Your task to perform on an android device: Add "macbook pro 13 inch" to the cart on walmart, then select checkout. Image 0: 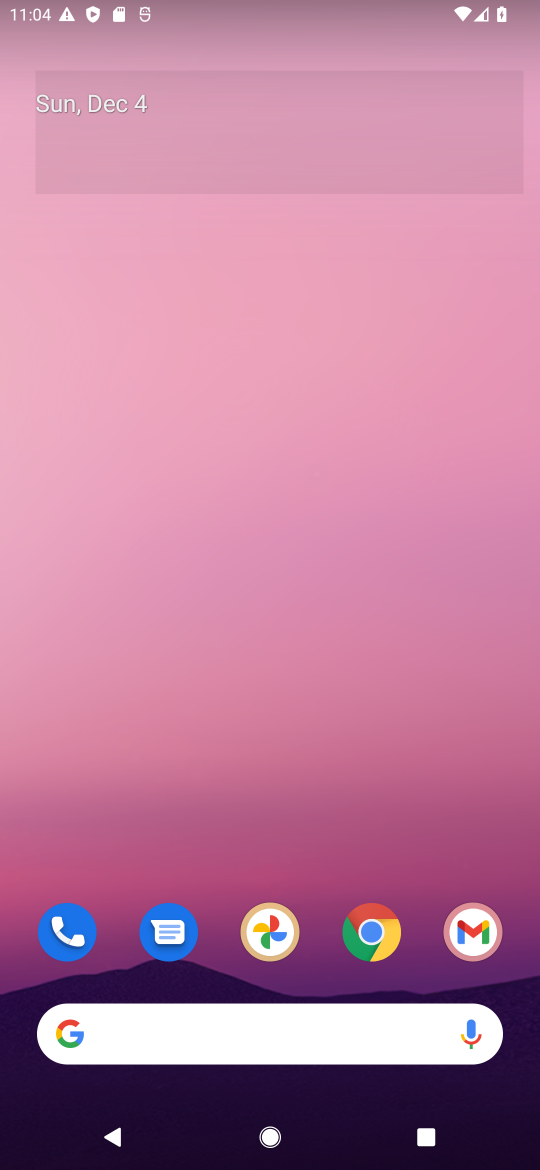
Step 0: click (361, 930)
Your task to perform on an android device: Add "macbook pro 13 inch" to the cart on walmart, then select checkout. Image 1: 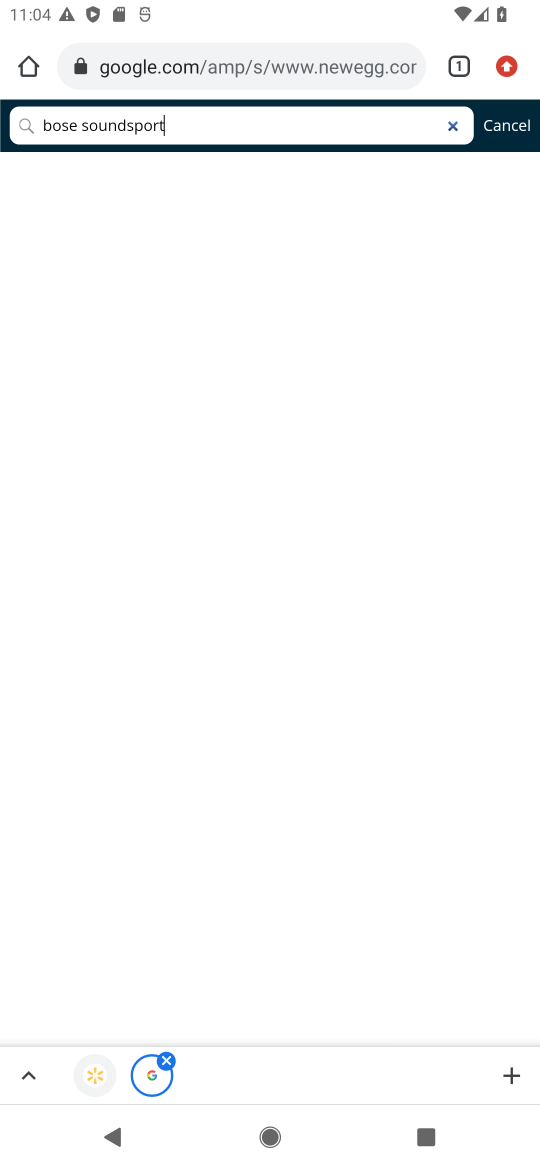
Step 1: click (294, 70)
Your task to perform on an android device: Add "macbook pro 13 inch" to the cart on walmart, then select checkout. Image 2: 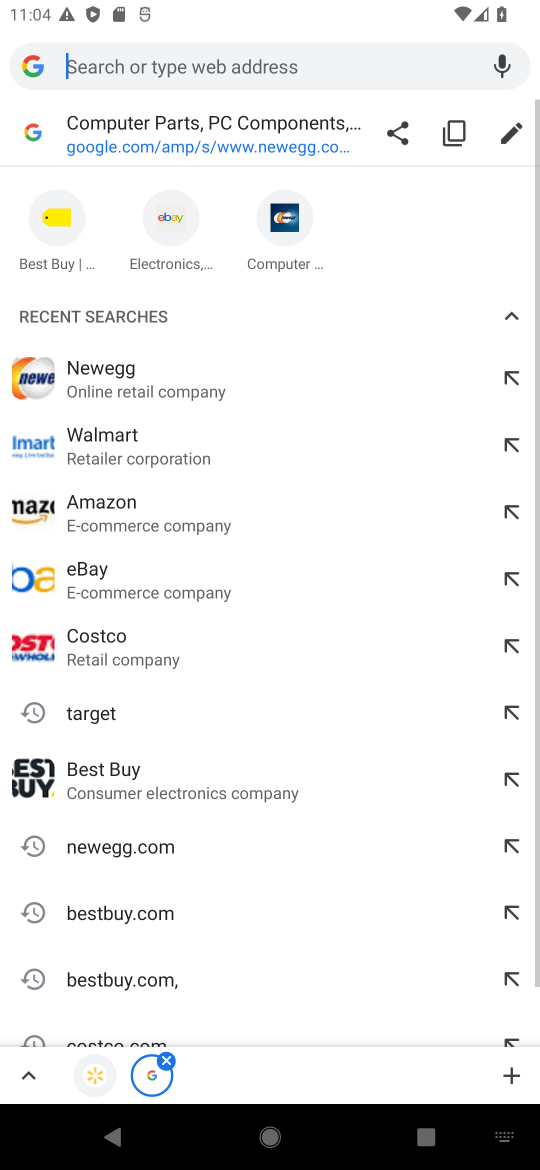
Step 2: click (115, 438)
Your task to perform on an android device: Add "macbook pro 13 inch" to the cart on walmart, then select checkout. Image 3: 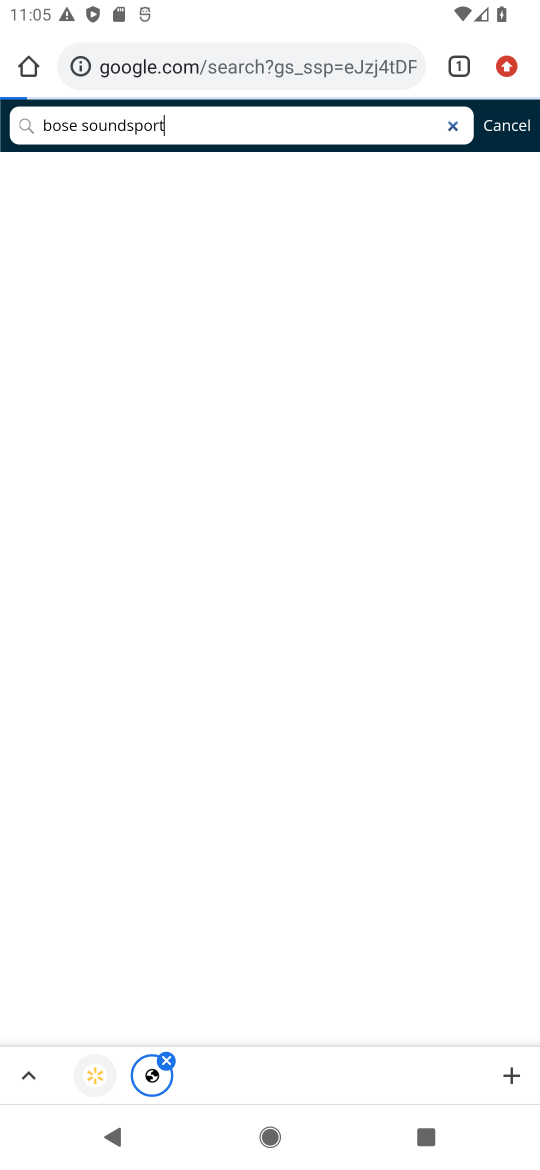
Step 3: click (296, 64)
Your task to perform on an android device: Add "macbook pro 13 inch" to the cart on walmart, then select checkout. Image 4: 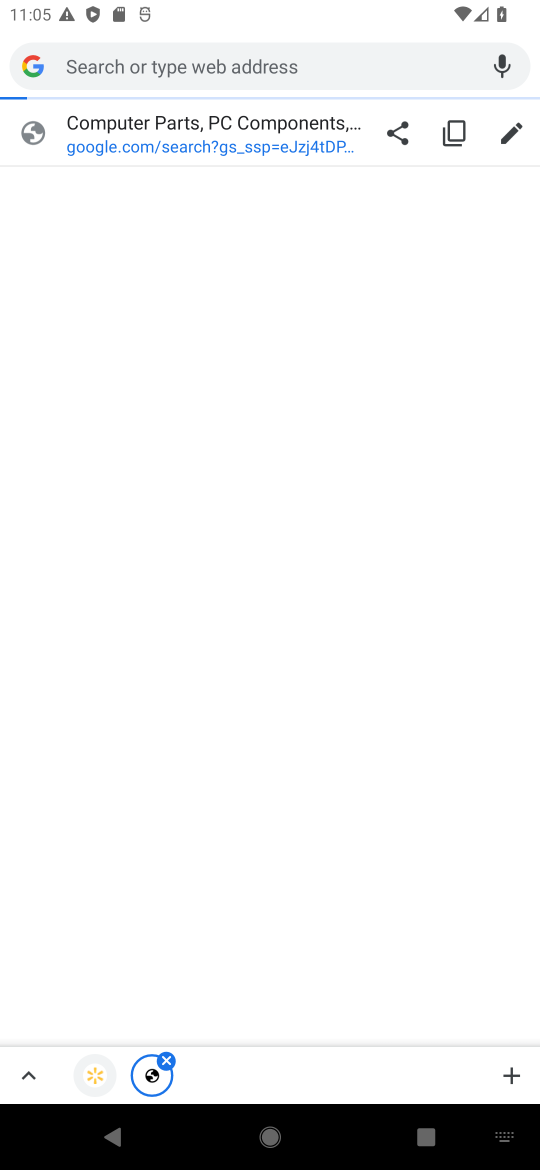
Step 4: type "walmart"
Your task to perform on an android device: Add "macbook pro 13 inch" to the cart on walmart, then select checkout. Image 5: 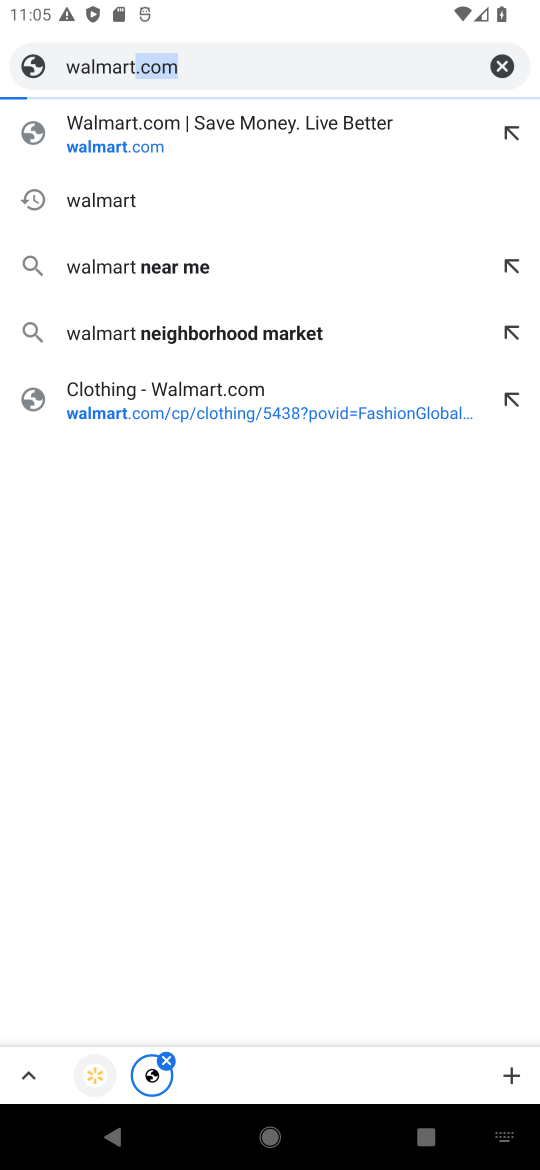
Step 5: click (148, 128)
Your task to perform on an android device: Add "macbook pro 13 inch" to the cart on walmart, then select checkout. Image 6: 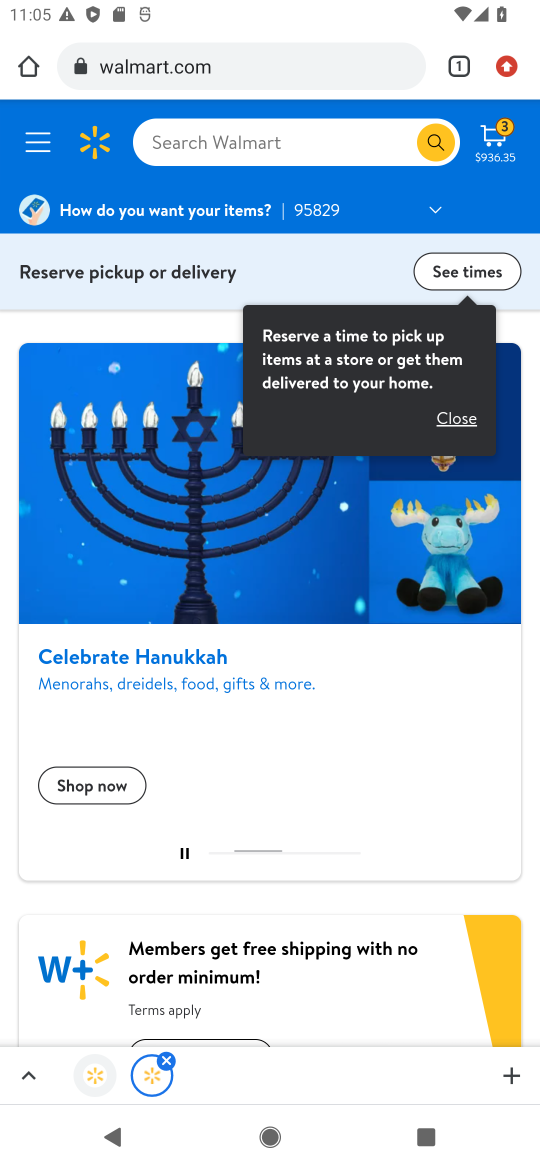
Step 6: click (321, 132)
Your task to perform on an android device: Add "macbook pro 13 inch" to the cart on walmart, then select checkout. Image 7: 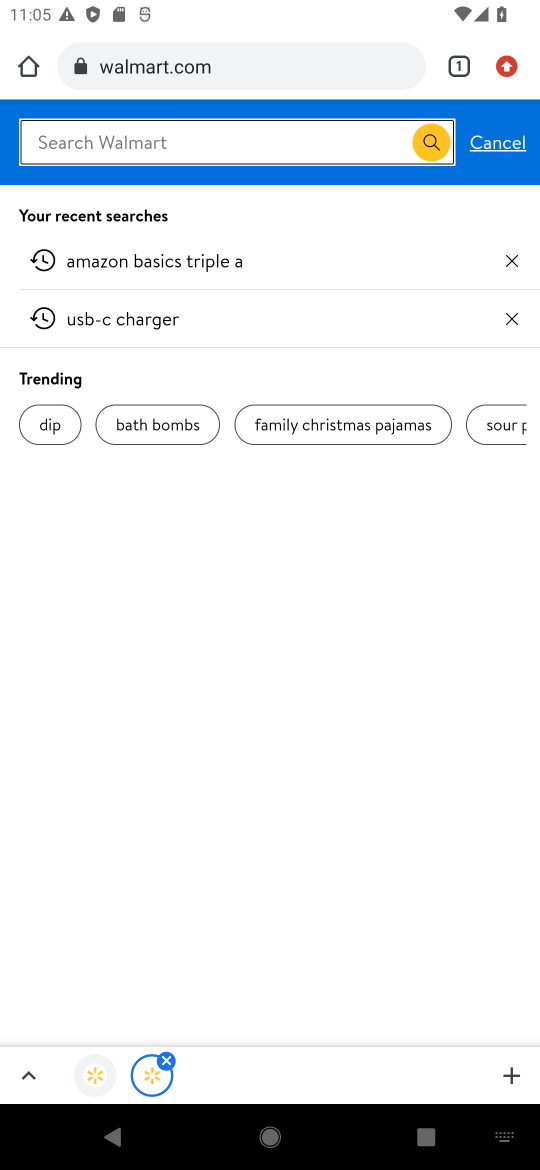
Step 7: type "macbook pro 13 inch"
Your task to perform on an android device: Add "macbook pro 13 inch" to the cart on walmart, then select checkout. Image 8: 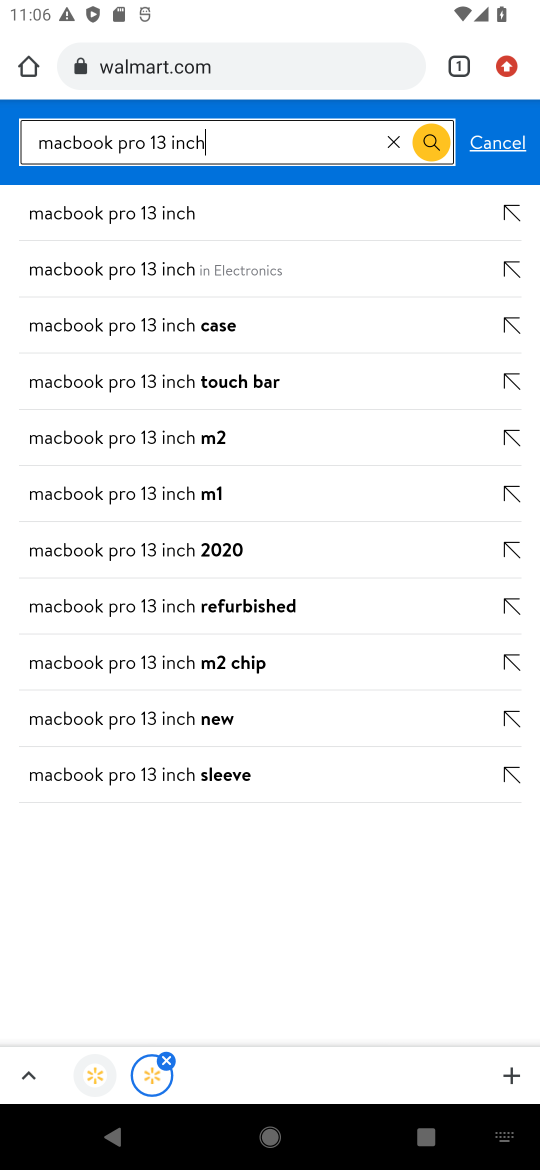
Step 8: click (185, 219)
Your task to perform on an android device: Add "macbook pro 13 inch" to the cart on walmart, then select checkout. Image 9: 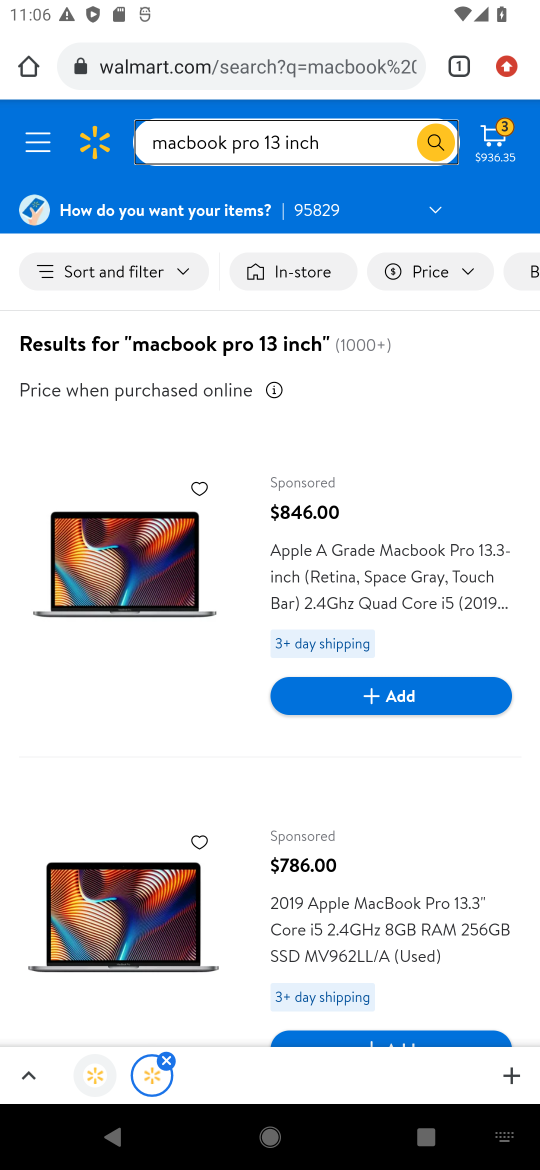
Step 9: click (389, 694)
Your task to perform on an android device: Add "macbook pro 13 inch" to the cart on walmart, then select checkout. Image 10: 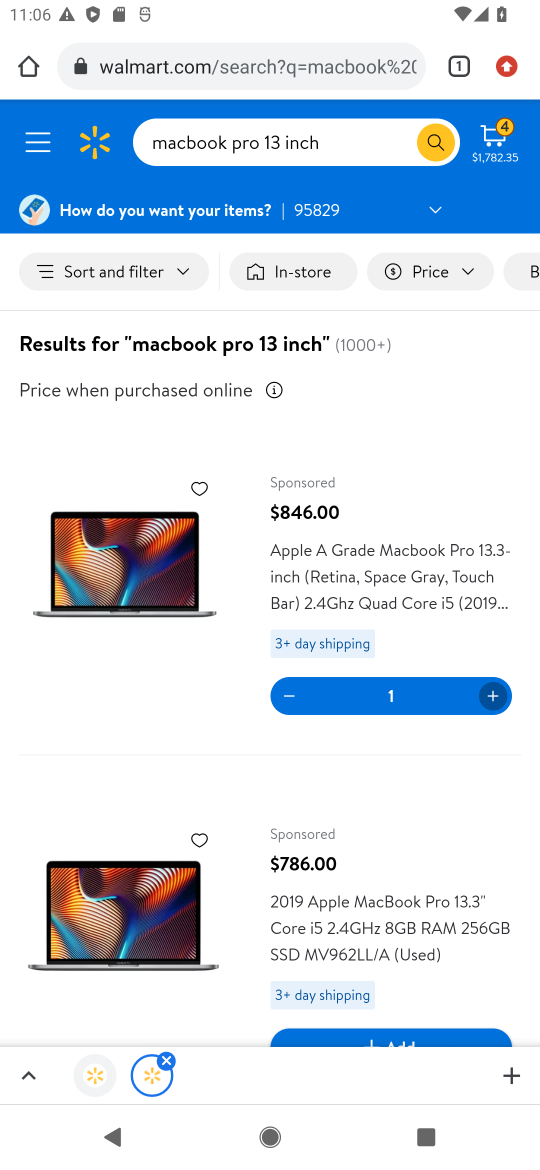
Step 10: click (496, 134)
Your task to perform on an android device: Add "macbook pro 13 inch" to the cart on walmart, then select checkout. Image 11: 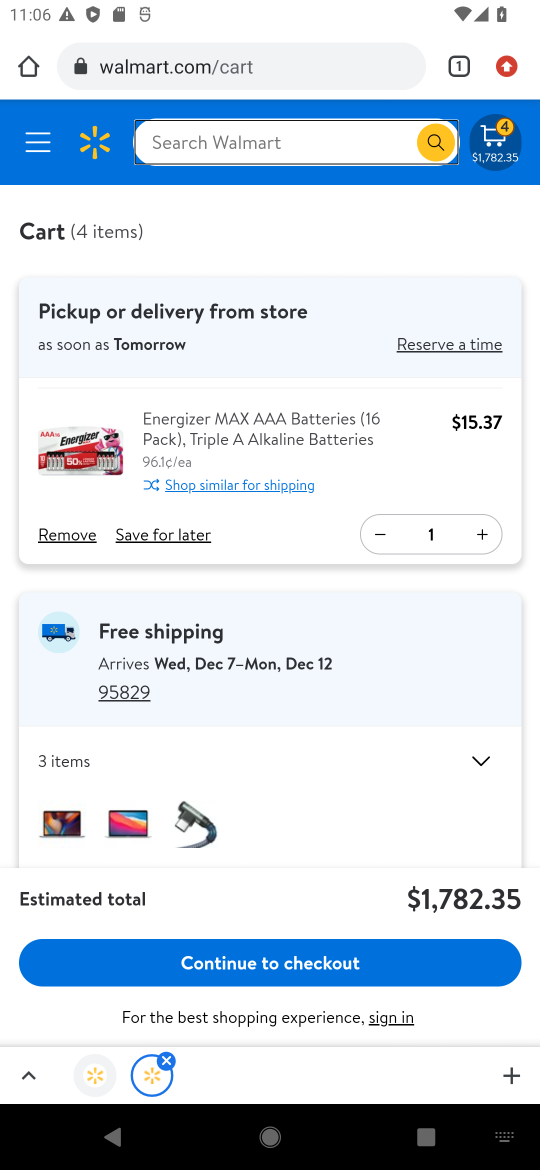
Step 11: click (287, 967)
Your task to perform on an android device: Add "macbook pro 13 inch" to the cart on walmart, then select checkout. Image 12: 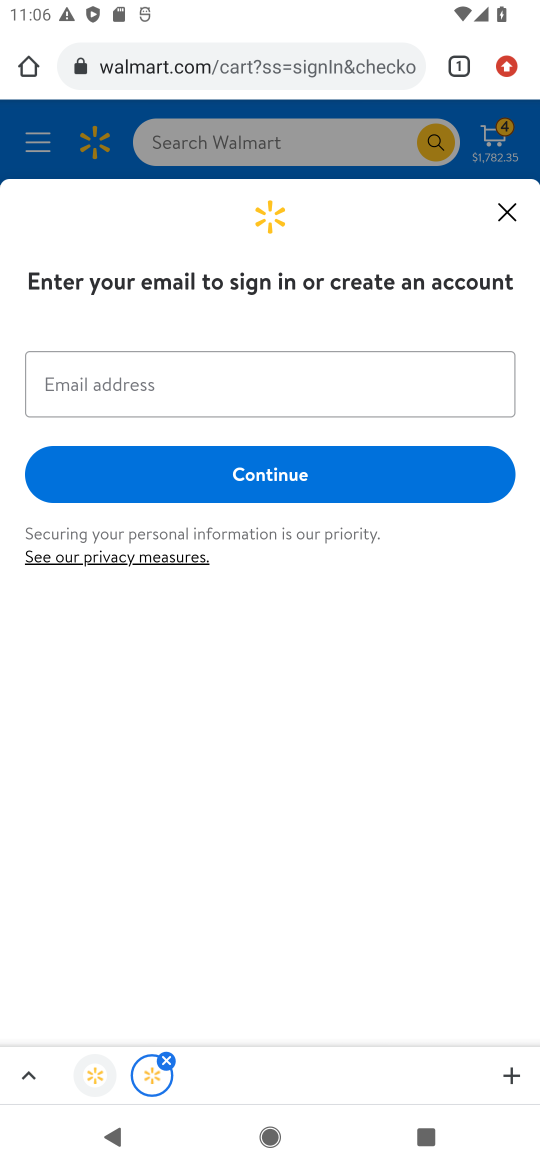
Step 12: task complete